Your task to perform on an android device: star an email in the gmail app Image 0: 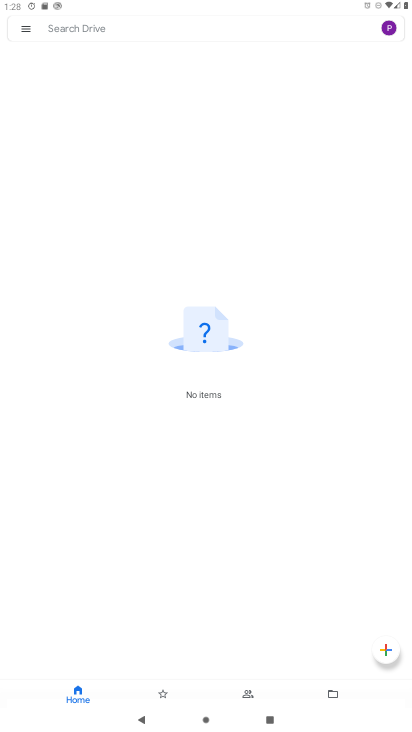
Step 0: press home button
Your task to perform on an android device: star an email in the gmail app Image 1: 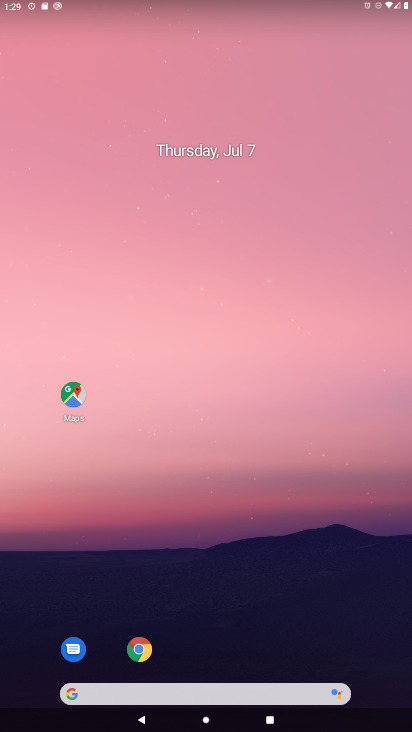
Step 1: drag from (189, 650) to (20, 82)
Your task to perform on an android device: star an email in the gmail app Image 2: 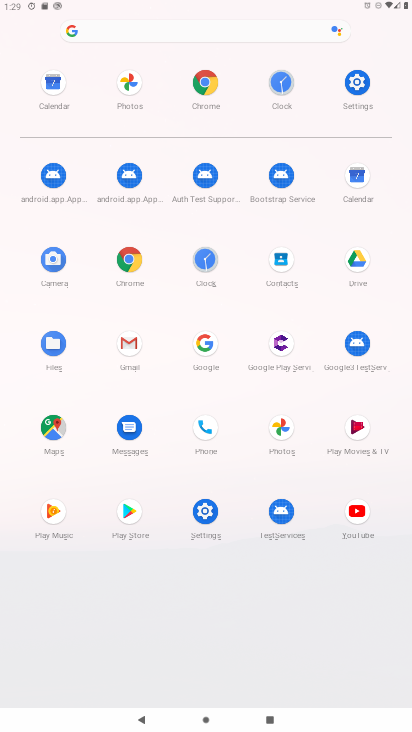
Step 2: click (133, 345)
Your task to perform on an android device: star an email in the gmail app Image 3: 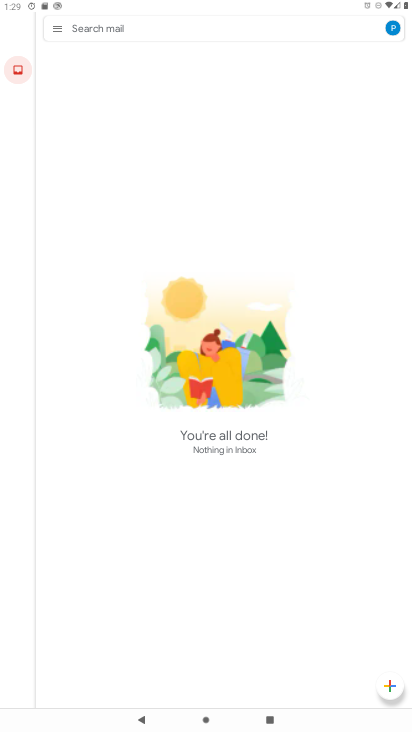
Step 3: task complete